Your task to perform on an android device: Open Yahoo.com Image 0: 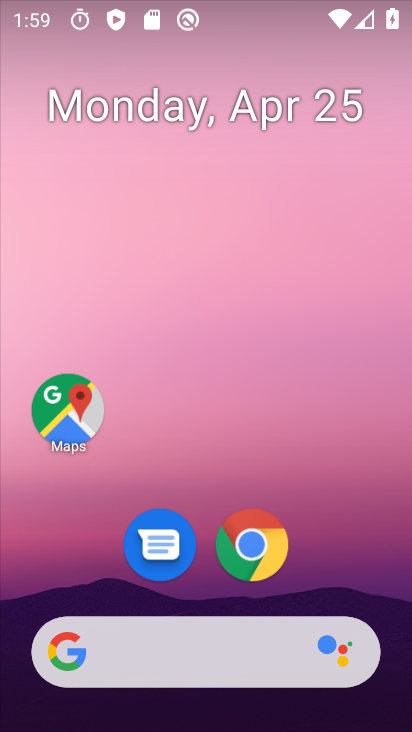
Step 0: click (250, 552)
Your task to perform on an android device: Open Yahoo.com Image 1: 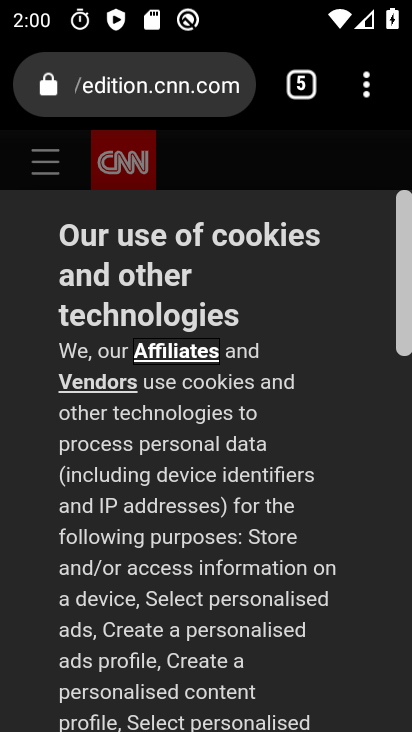
Step 1: click (308, 85)
Your task to perform on an android device: Open Yahoo.com Image 2: 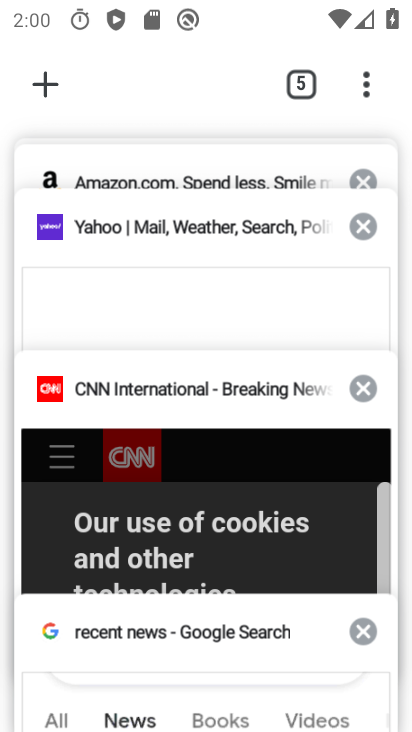
Step 2: click (237, 231)
Your task to perform on an android device: Open Yahoo.com Image 3: 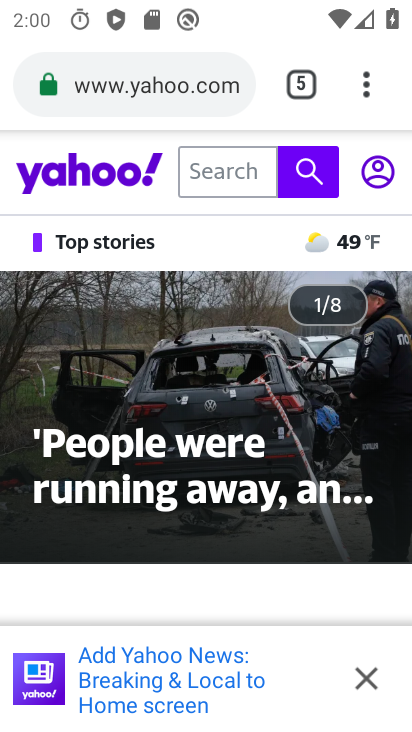
Step 3: task complete